Your task to perform on an android device: open app "Etsy: Buy & Sell Unique Items" (install if not already installed) Image 0: 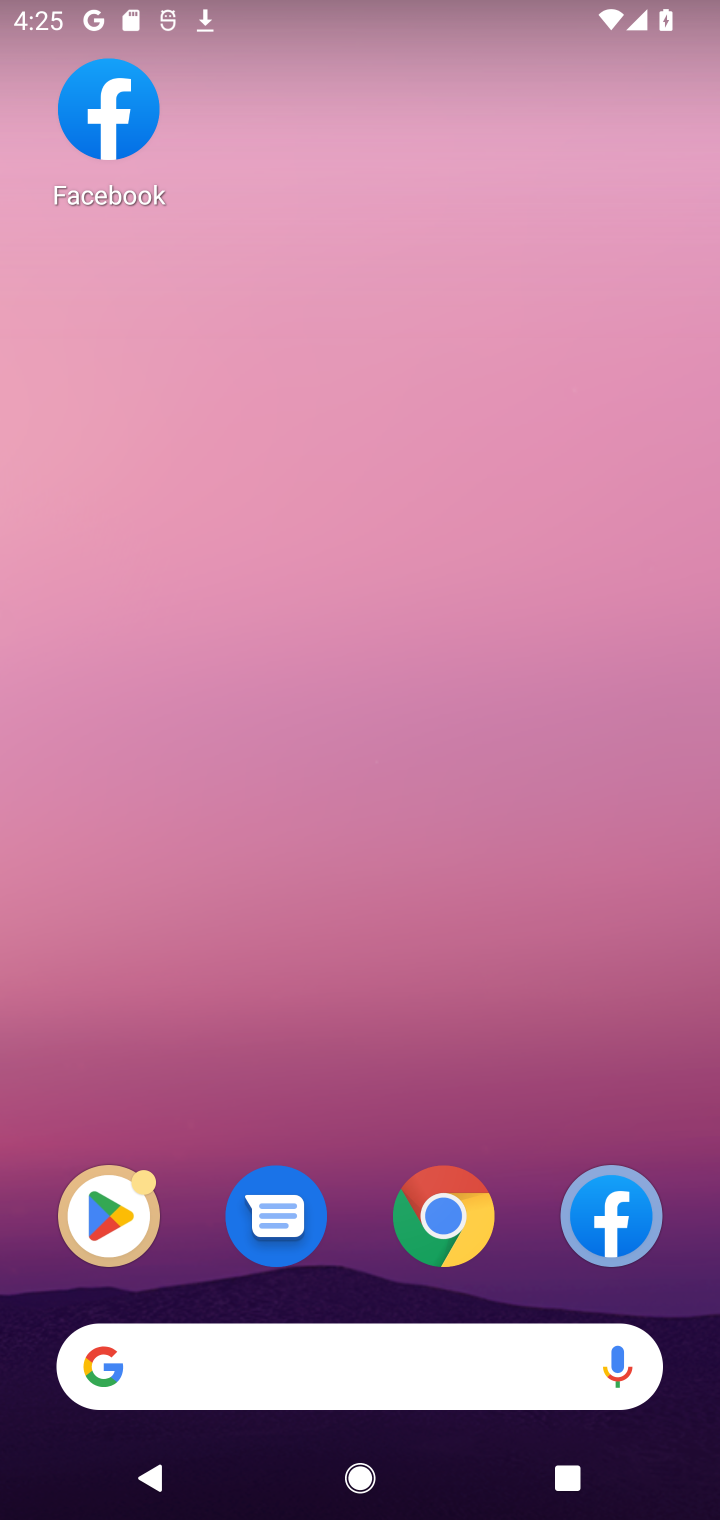
Step 0: click (124, 1245)
Your task to perform on an android device: open app "Etsy: Buy & Sell Unique Items" (install if not already installed) Image 1: 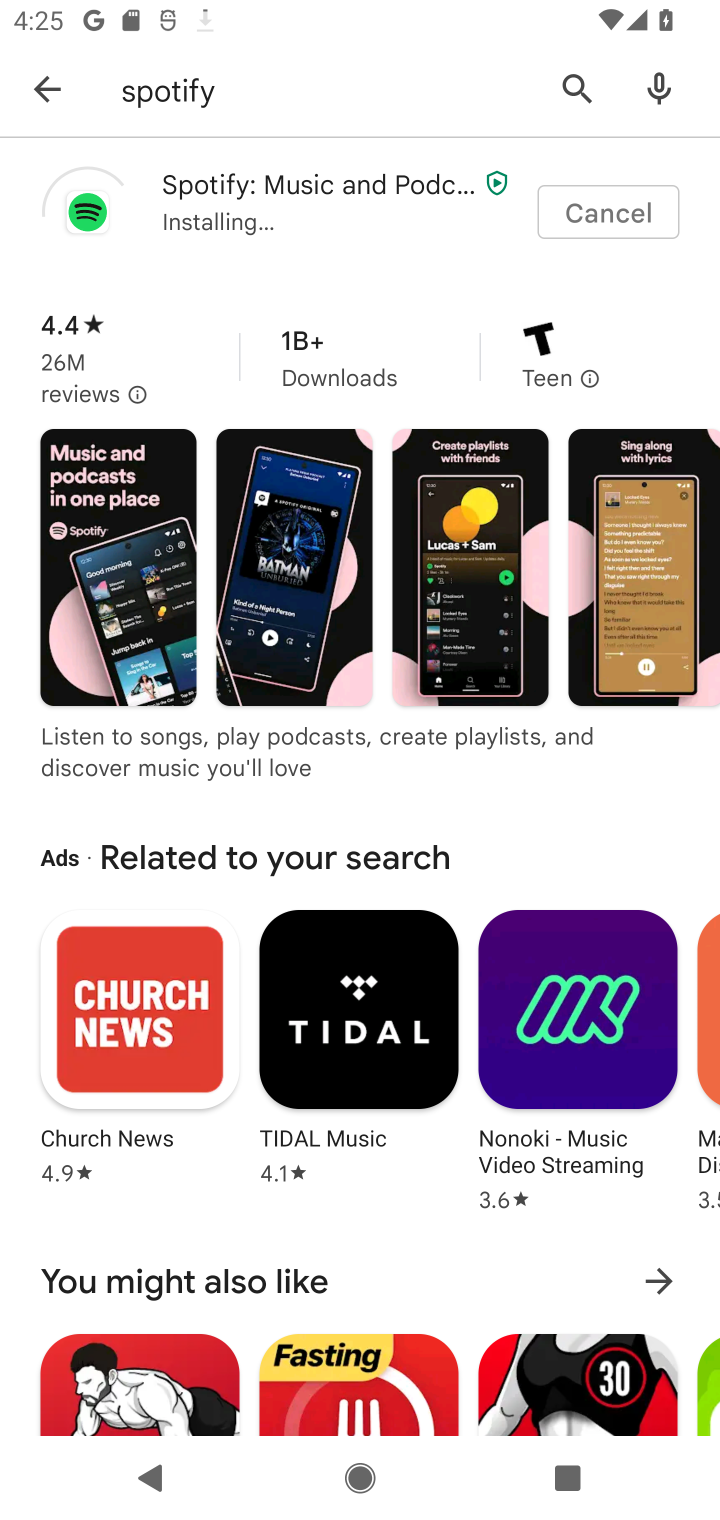
Step 1: click (595, 90)
Your task to perform on an android device: open app "Etsy: Buy & Sell Unique Items" (install if not already installed) Image 2: 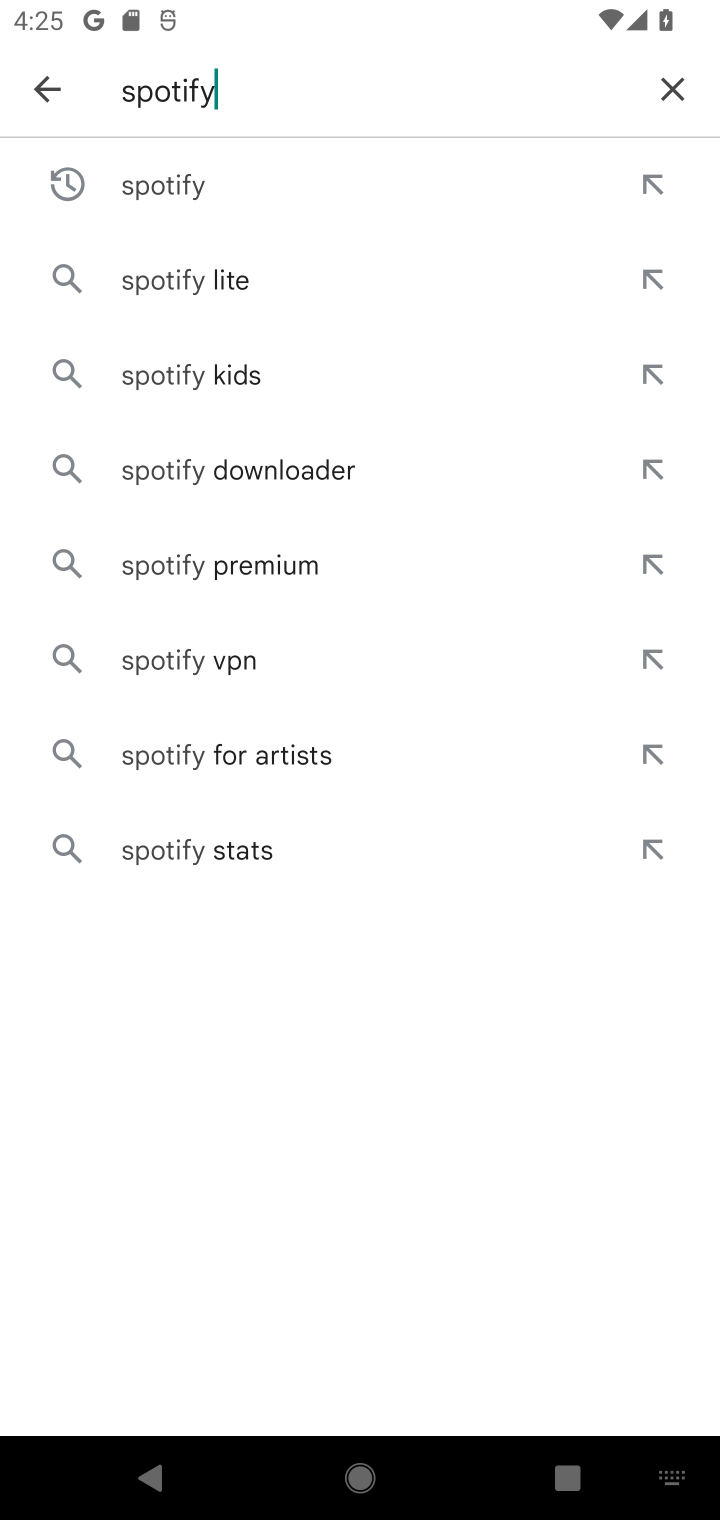
Step 2: click (660, 90)
Your task to perform on an android device: open app "Etsy: Buy & Sell Unique Items" (install if not already installed) Image 3: 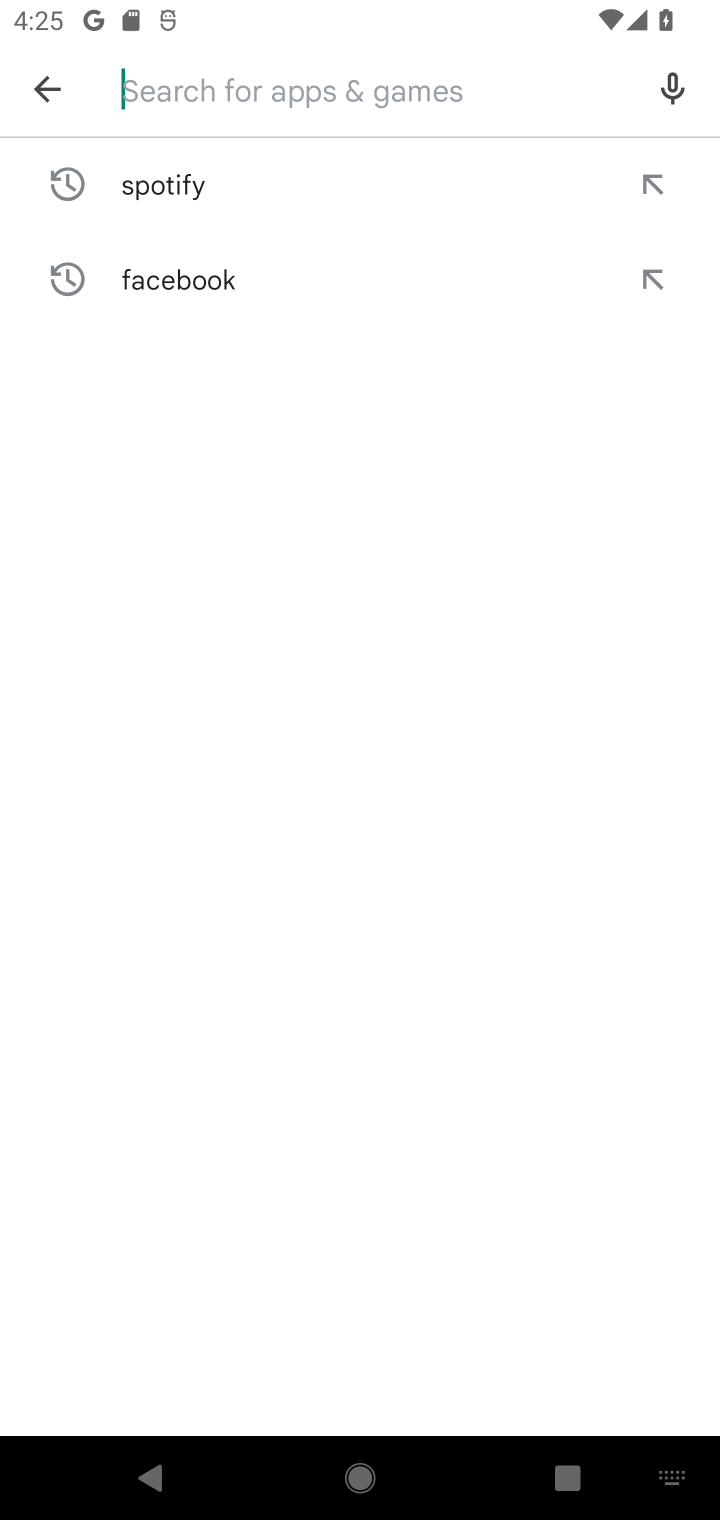
Step 3: type "etsy"
Your task to perform on an android device: open app "Etsy: Buy & Sell Unique Items" (install if not already installed) Image 4: 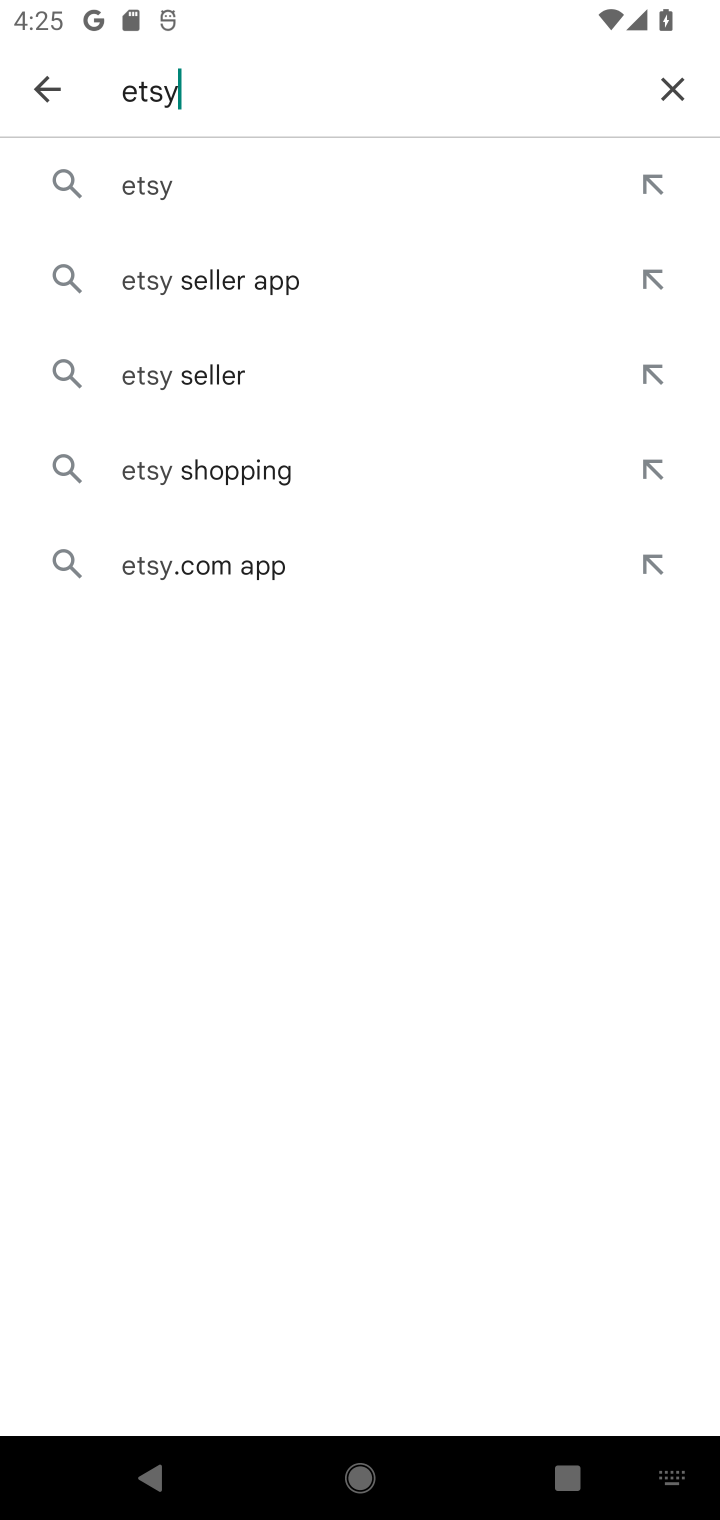
Step 4: click (376, 170)
Your task to perform on an android device: open app "Etsy: Buy & Sell Unique Items" (install if not already installed) Image 5: 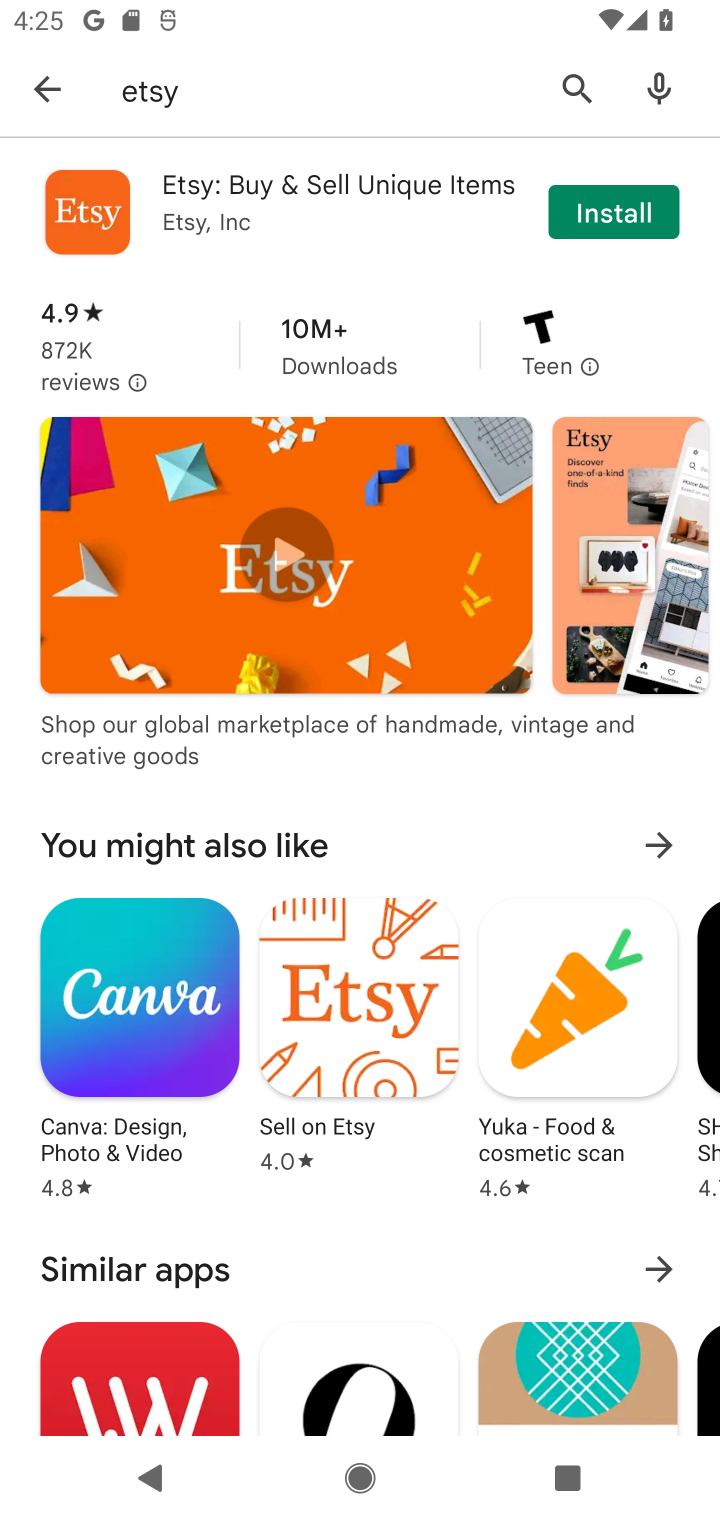
Step 5: click (570, 214)
Your task to perform on an android device: open app "Etsy: Buy & Sell Unique Items" (install if not already installed) Image 6: 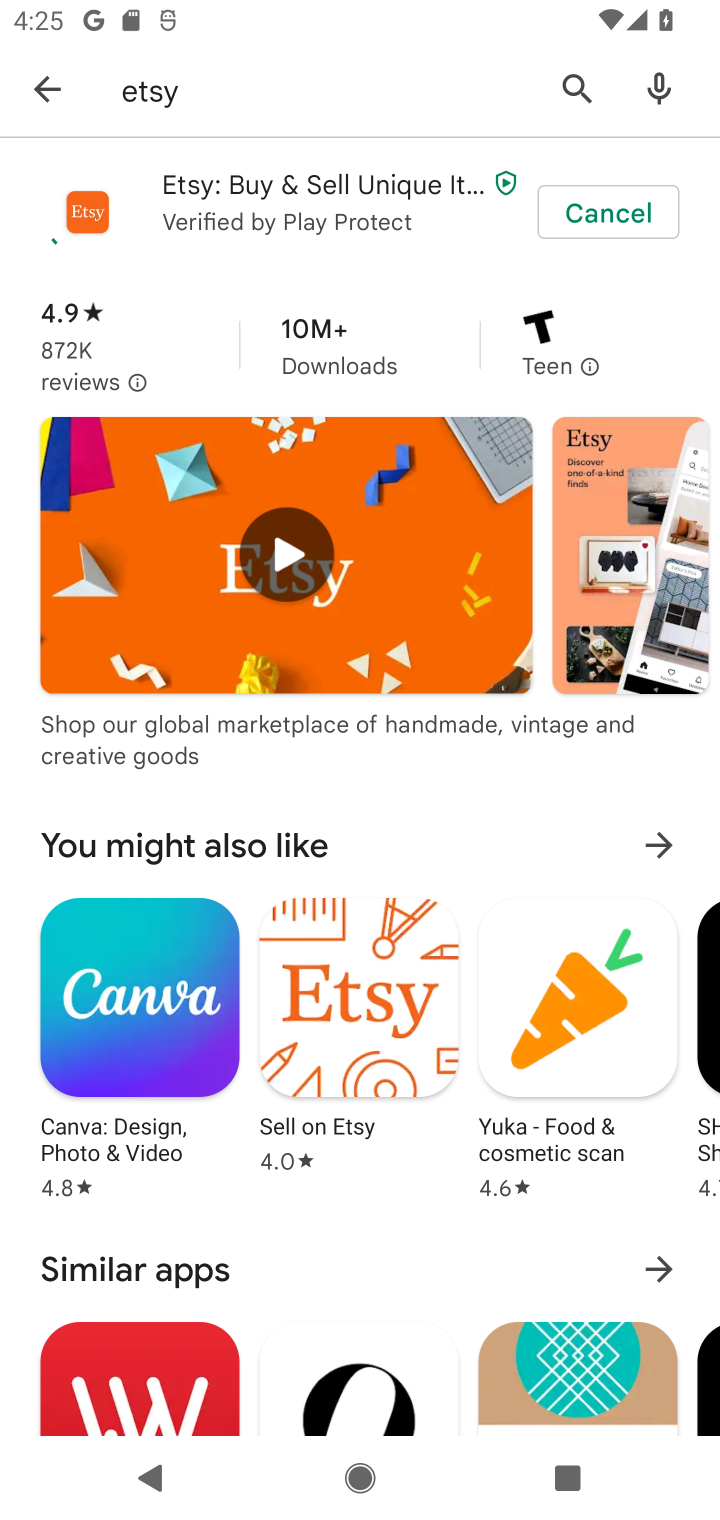
Step 6: task complete